Your task to perform on an android device: Open display settings Image 0: 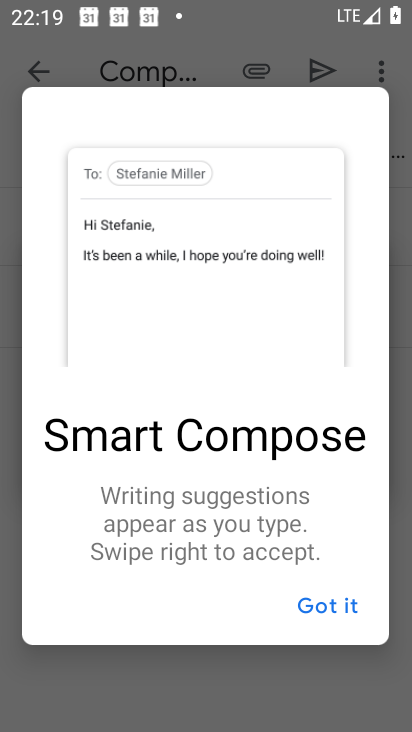
Step 0: press home button
Your task to perform on an android device: Open display settings Image 1: 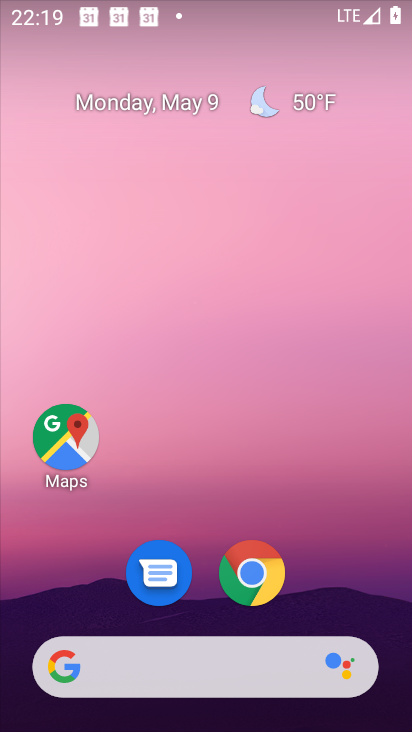
Step 1: drag from (342, 551) to (269, 96)
Your task to perform on an android device: Open display settings Image 2: 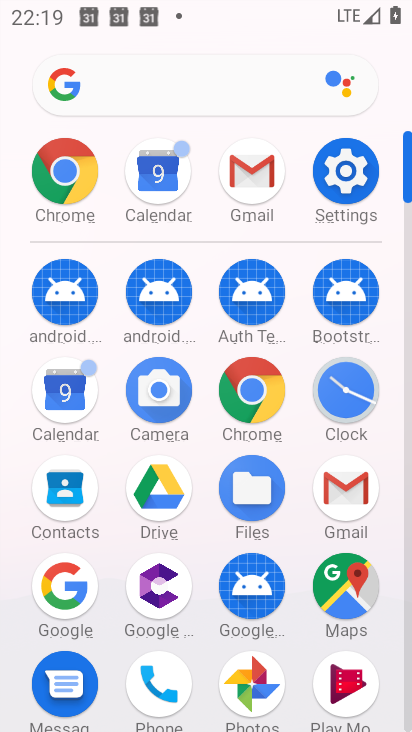
Step 2: click (354, 142)
Your task to perform on an android device: Open display settings Image 3: 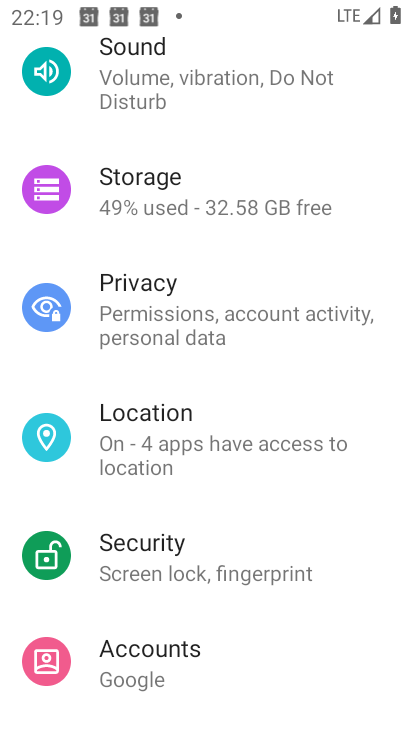
Step 3: drag from (282, 115) to (251, 584)
Your task to perform on an android device: Open display settings Image 4: 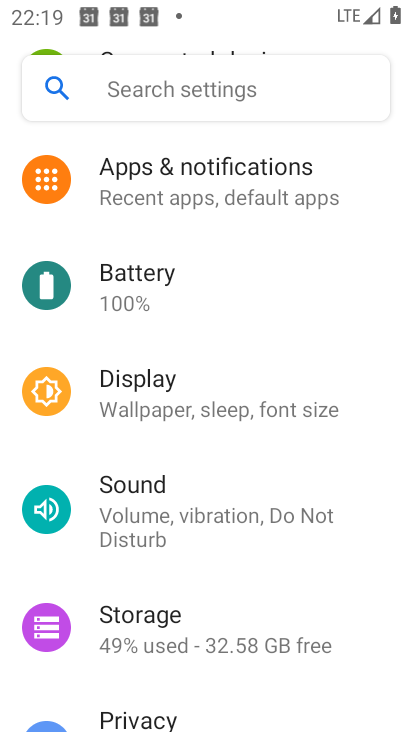
Step 4: drag from (258, 280) to (286, 159)
Your task to perform on an android device: Open display settings Image 5: 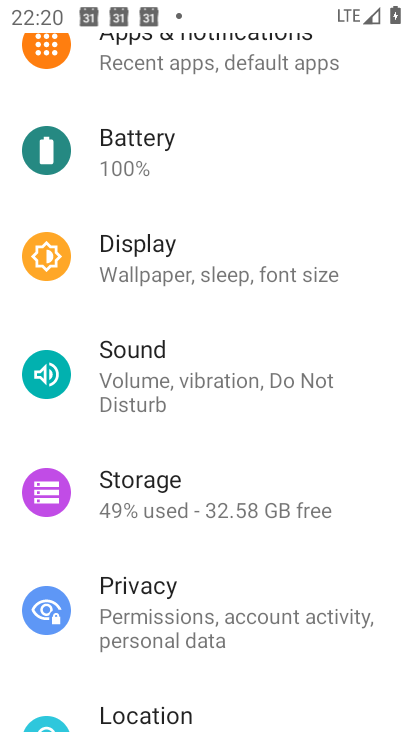
Step 5: click (230, 268)
Your task to perform on an android device: Open display settings Image 6: 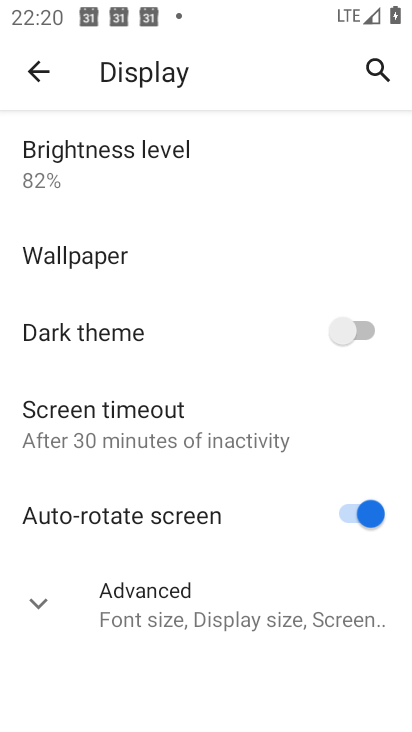
Step 6: task complete